Your task to perform on an android device: What's on my calendar today? Image 0: 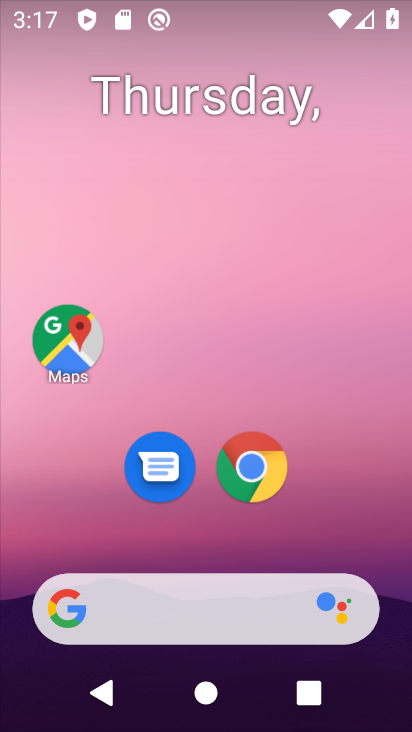
Step 0: drag from (215, 617) to (272, 16)
Your task to perform on an android device: What's on my calendar today? Image 1: 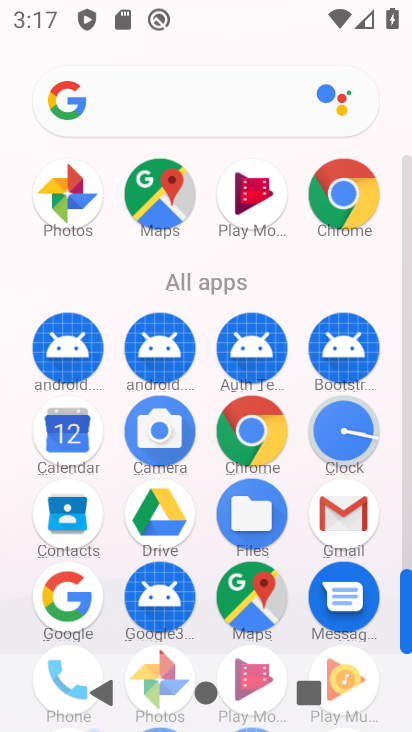
Step 1: click (74, 418)
Your task to perform on an android device: What's on my calendar today? Image 2: 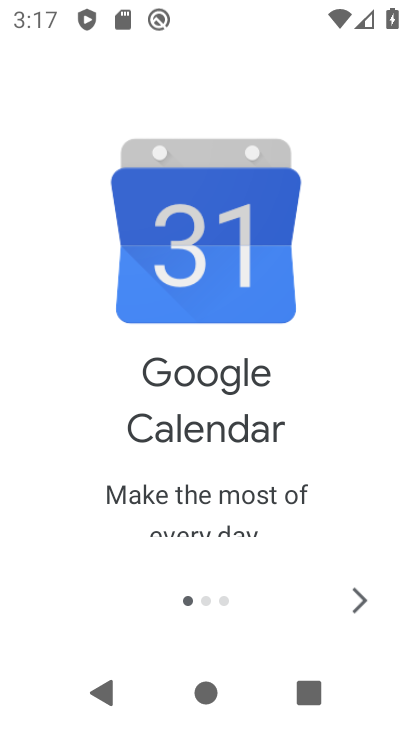
Step 2: click (351, 596)
Your task to perform on an android device: What's on my calendar today? Image 3: 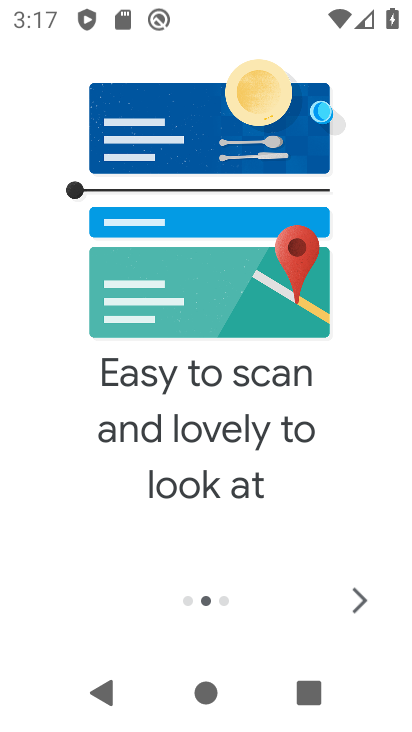
Step 3: click (351, 596)
Your task to perform on an android device: What's on my calendar today? Image 4: 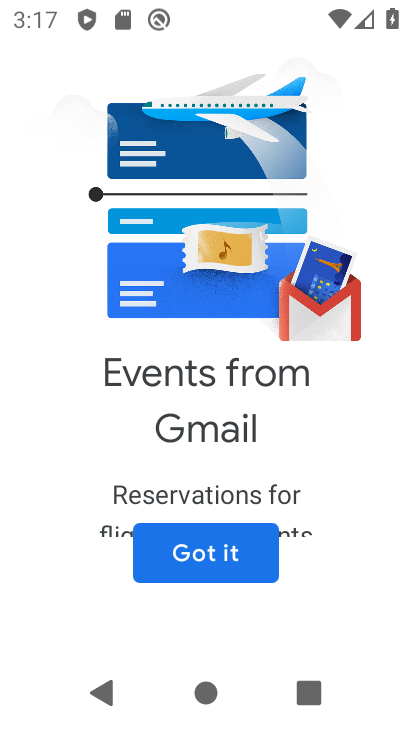
Step 4: click (354, 585)
Your task to perform on an android device: What's on my calendar today? Image 5: 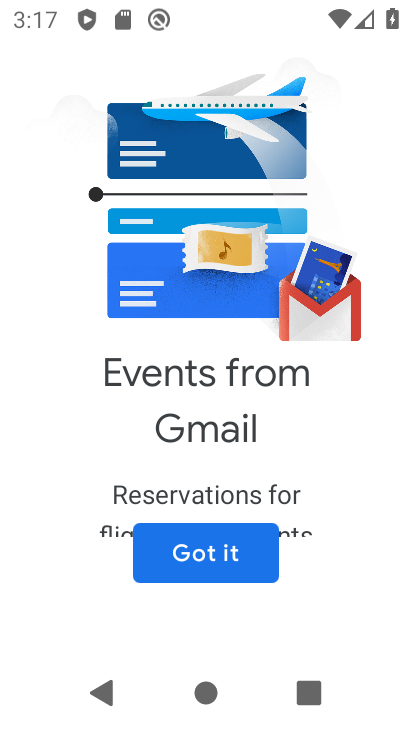
Step 5: click (222, 537)
Your task to perform on an android device: What's on my calendar today? Image 6: 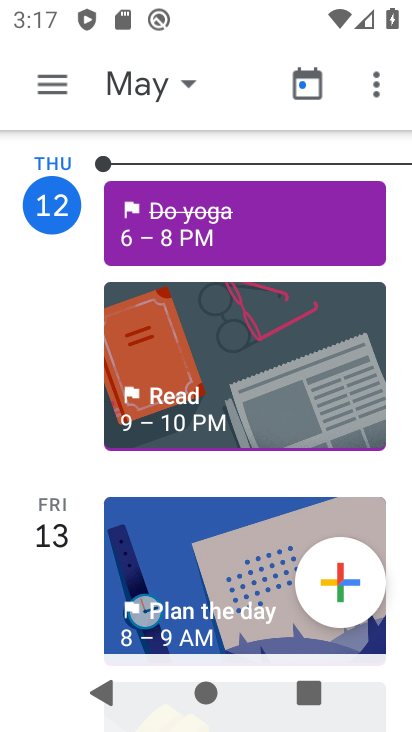
Step 6: click (185, 84)
Your task to perform on an android device: What's on my calendar today? Image 7: 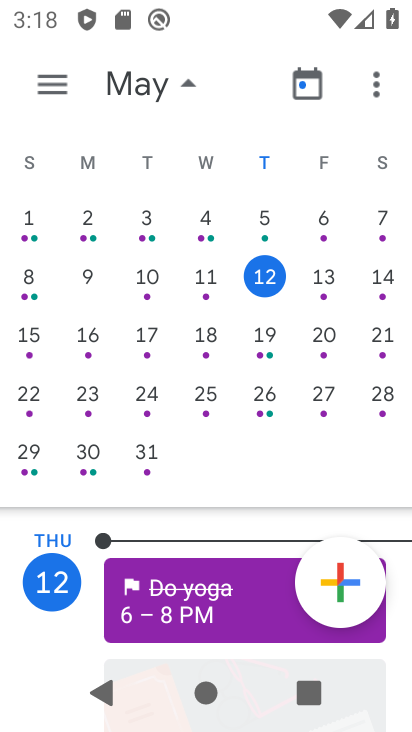
Step 7: task complete